Your task to perform on an android device: Clear all items from cart on costco. Image 0: 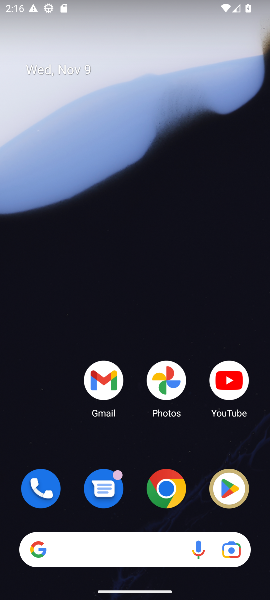
Step 0: drag from (140, 455) to (200, 21)
Your task to perform on an android device: Clear all items from cart on costco. Image 1: 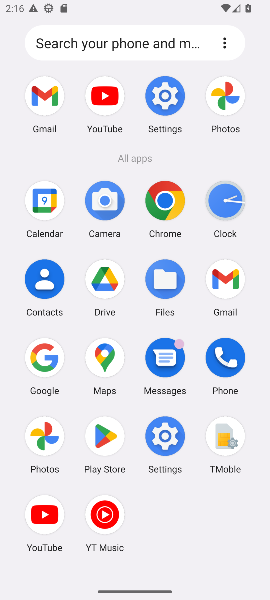
Step 1: click (167, 207)
Your task to perform on an android device: Clear all items from cart on costco. Image 2: 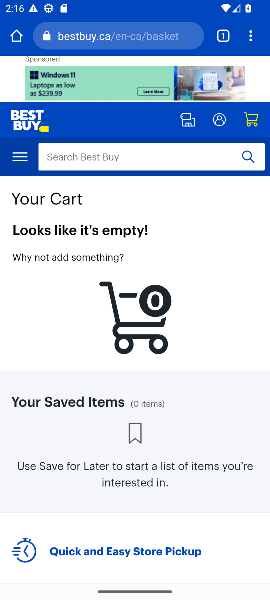
Step 2: click (153, 34)
Your task to perform on an android device: Clear all items from cart on costco. Image 3: 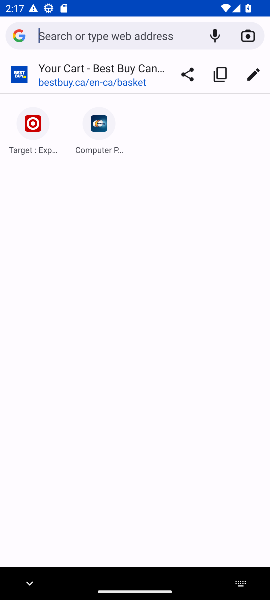
Step 3: type "costco.com"
Your task to perform on an android device: Clear all items from cart on costco. Image 4: 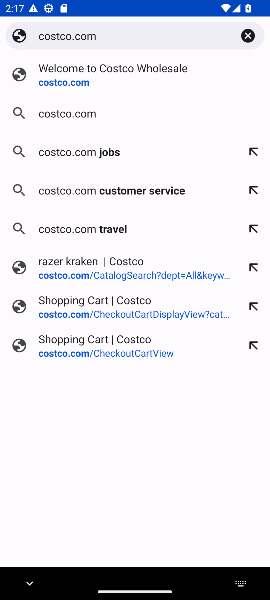
Step 4: press enter
Your task to perform on an android device: Clear all items from cart on costco. Image 5: 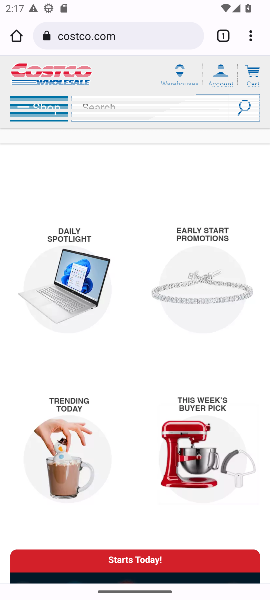
Step 5: click (255, 66)
Your task to perform on an android device: Clear all items from cart on costco. Image 6: 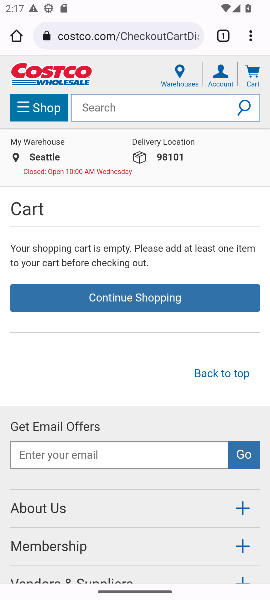
Step 6: task complete